Your task to perform on an android device: uninstall "Google Play Games" Image 0: 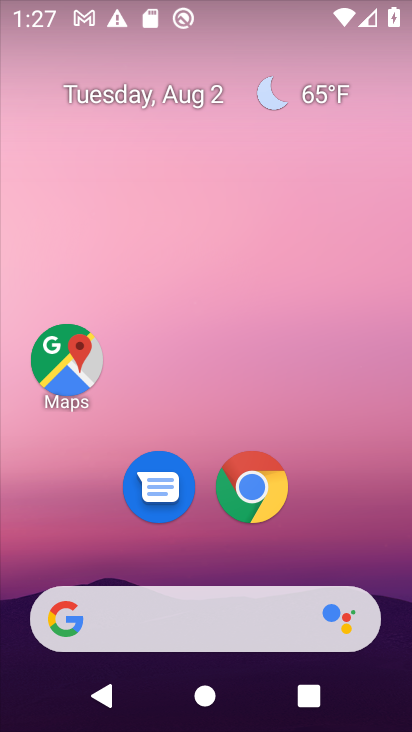
Step 0: drag from (168, 602) to (204, 57)
Your task to perform on an android device: uninstall "Google Play Games" Image 1: 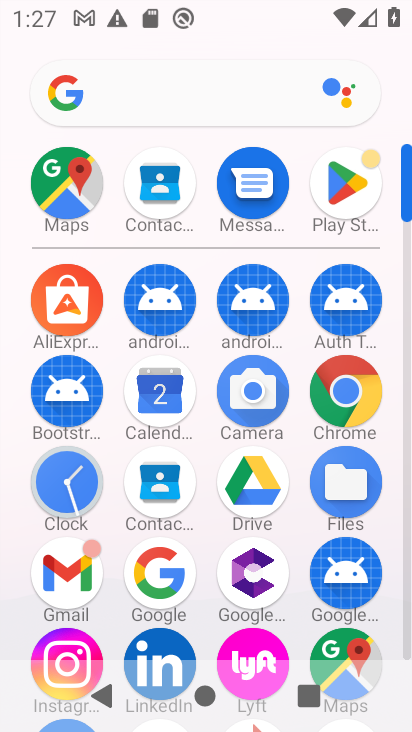
Step 1: click (333, 206)
Your task to perform on an android device: uninstall "Google Play Games" Image 2: 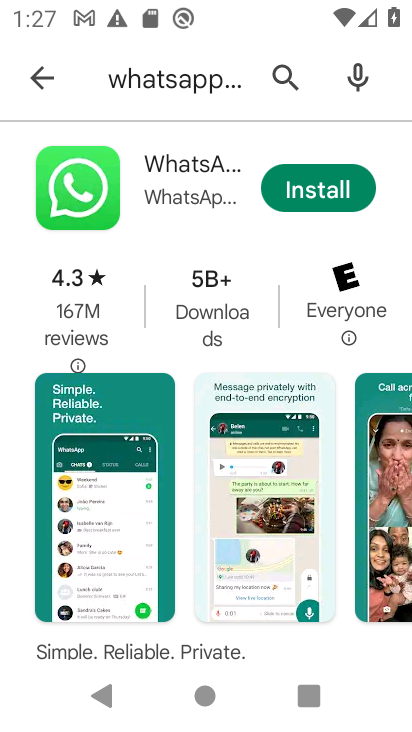
Step 2: click (44, 83)
Your task to perform on an android device: uninstall "Google Play Games" Image 3: 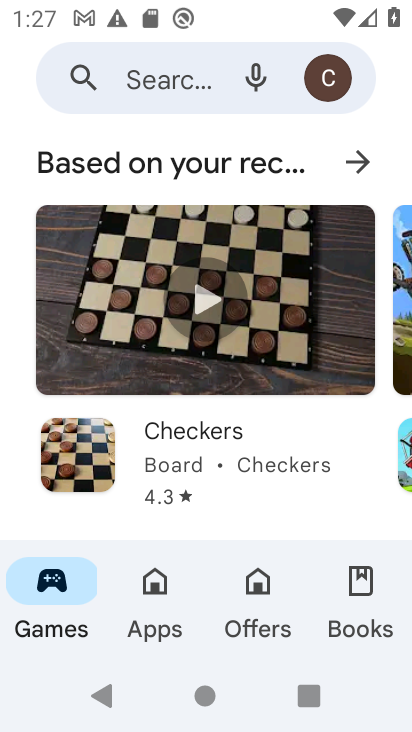
Step 3: click (115, 79)
Your task to perform on an android device: uninstall "Google Play Games" Image 4: 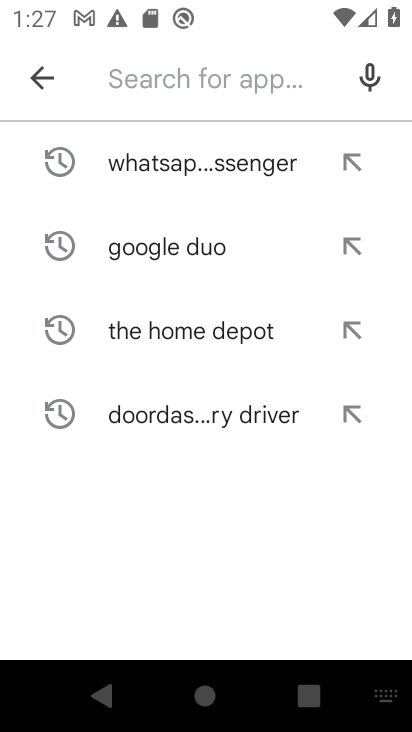
Step 4: type "Google Play Games"
Your task to perform on an android device: uninstall "Google Play Games" Image 5: 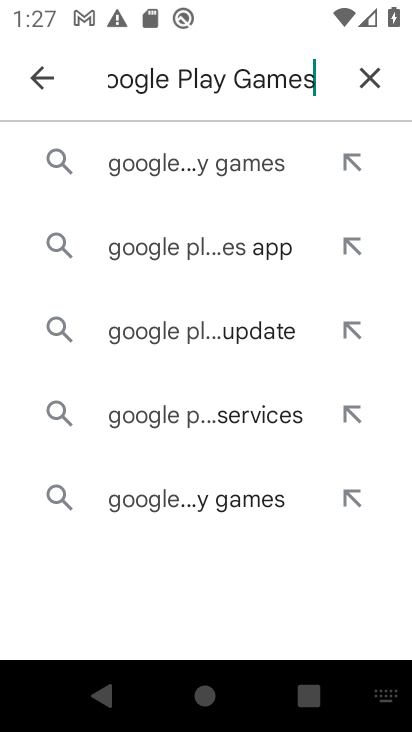
Step 5: type ""
Your task to perform on an android device: uninstall "Google Play Games" Image 6: 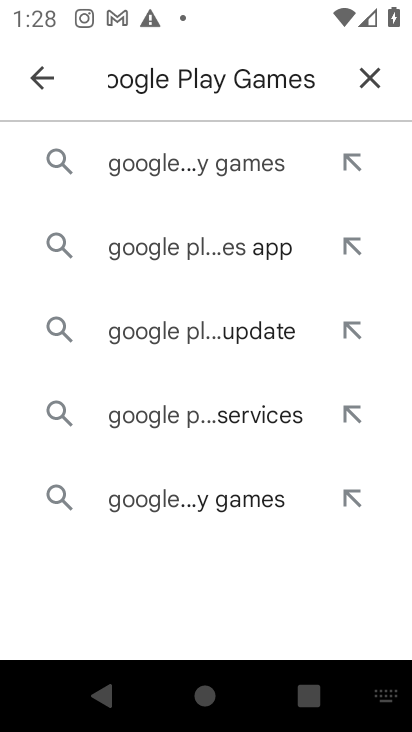
Step 6: click (199, 156)
Your task to perform on an android device: uninstall "Google Play Games" Image 7: 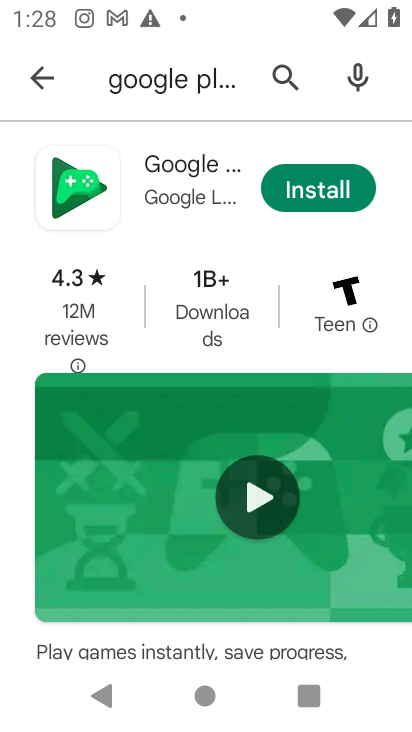
Step 7: task complete